Your task to perform on an android device: turn vacation reply on in the gmail app Image 0: 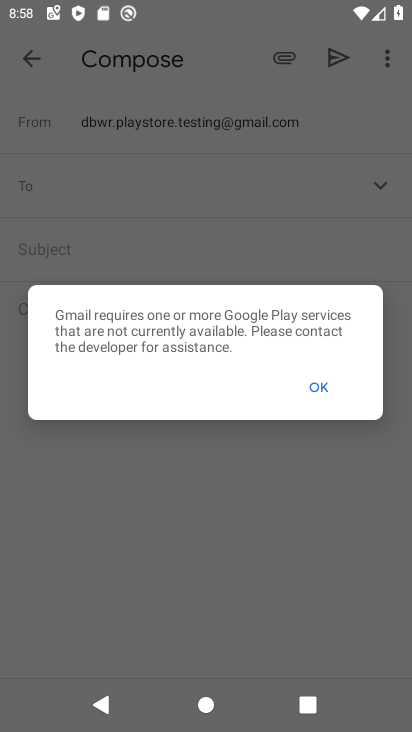
Step 0: press home button
Your task to perform on an android device: turn vacation reply on in the gmail app Image 1: 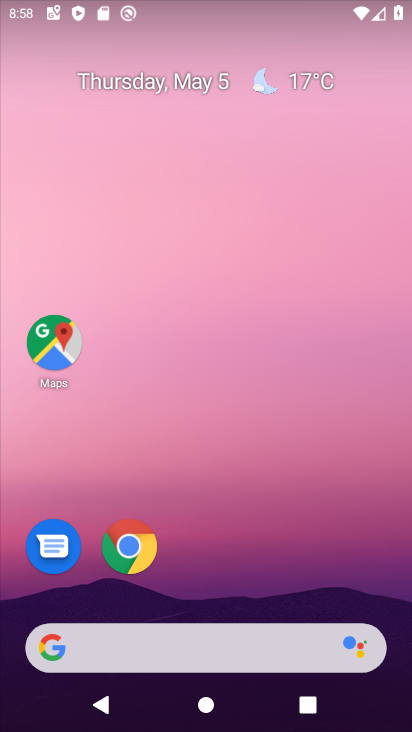
Step 1: drag from (184, 640) to (272, 116)
Your task to perform on an android device: turn vacation reply on in the gmail app Image 2: 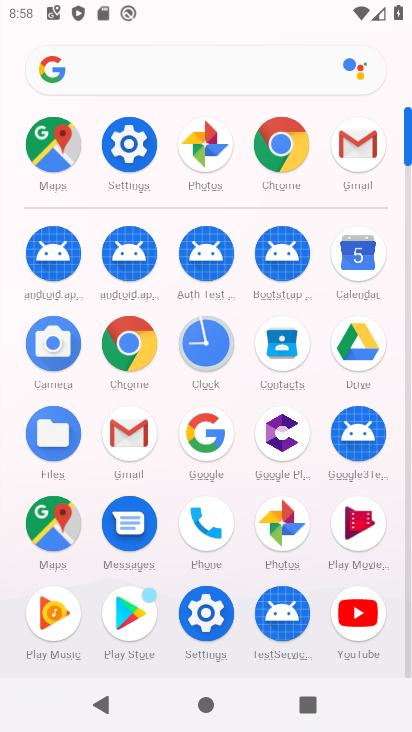
Step 2: click (355, 157)
Your task to perform on an android device: turn vacation reply on in the gmail app Image 3: 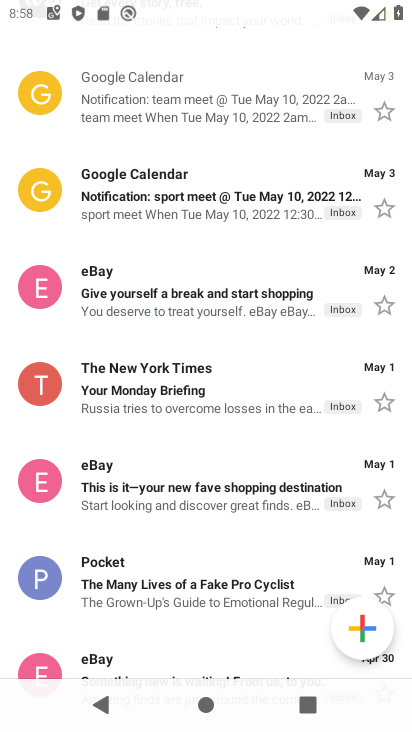
Step 3: drag from (164, 103) to (139, 457)
Your task to perform on an android device: turn vacation reply on in the gmail app Image 4: 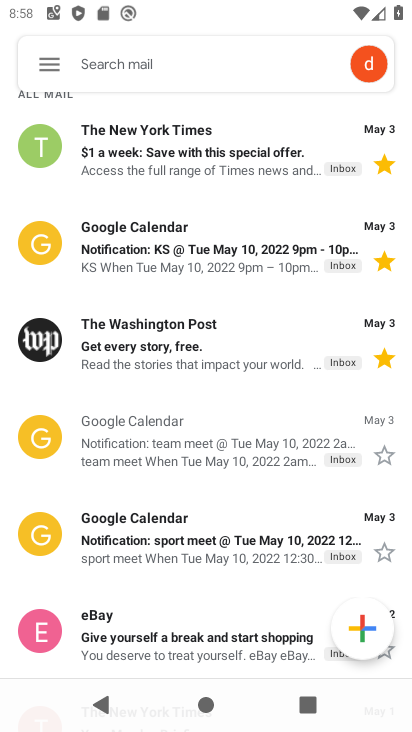
Step 4: click (58, 67)
Your task to perform on an android device: turn vacation reply on in the gmail app Image 5: 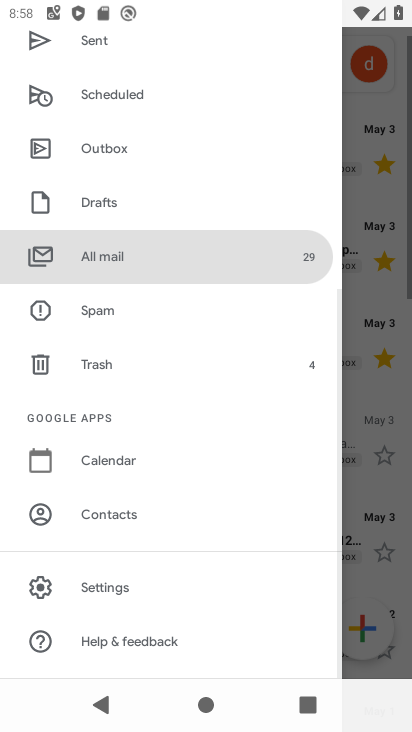
Step 5: click (103, 589)
Your task to perform on an android device: turn vacation reply on in the gmail app Image 6: 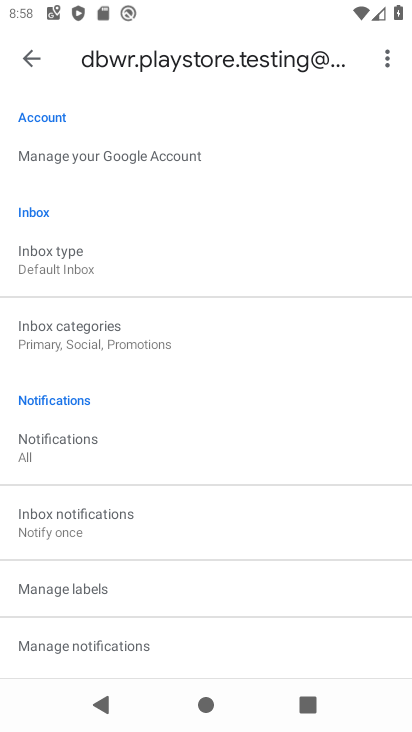
Step 6: drag from (108, 542) to (273, 39)
Your task to perform on an android device: turn vacation reply on in the gmail app Image 7: 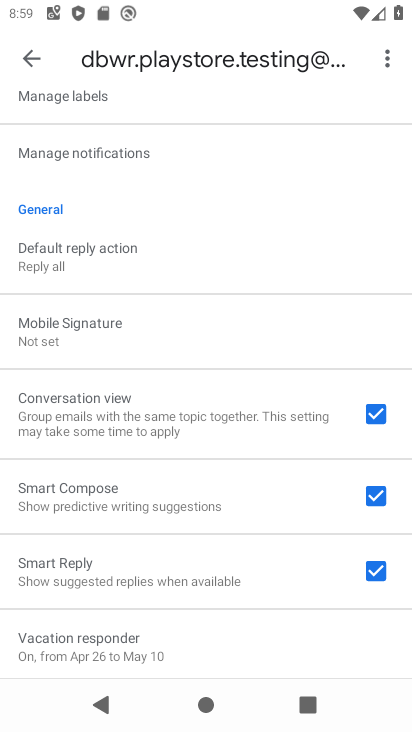
Step 7: drag from (123, 534) to (189, 302)
Your task to perform on an android device: turn vacation reply on in the gmail app Image 8: 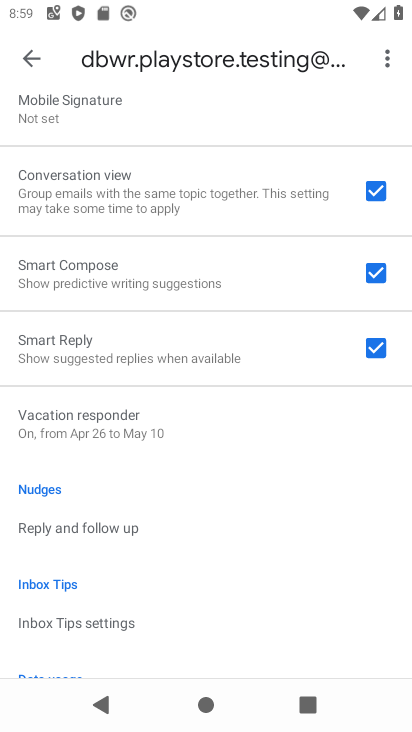
Step 8: click (94, 430)
Your task to perform on an android device: turn vacation reply on in the gmail app Image 9: 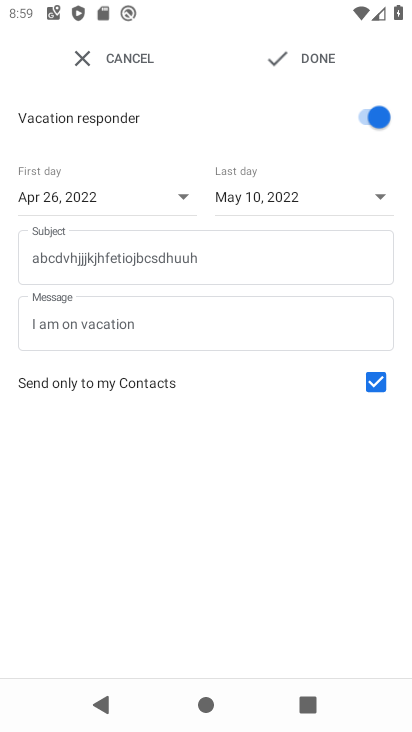
Step 9: task complete